Your task to perform on an android device: toggle pop-ups in chrome Image 0: 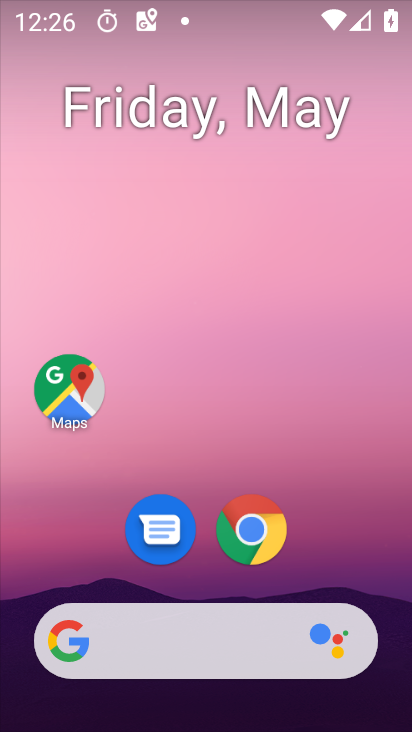
Step 0: click (259, 535)
Your task to perform on an android device: toggle pop-ups in chrome Image 1: 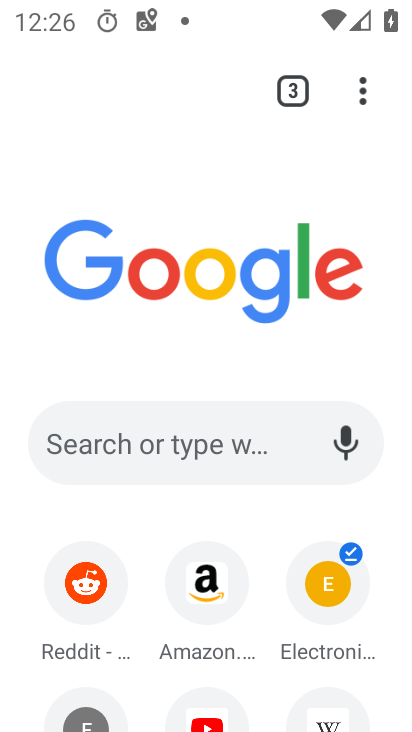
Step 1: click (358, 94)
Your task to perform on an android device: toggle pop-ups in chrome Image 2: 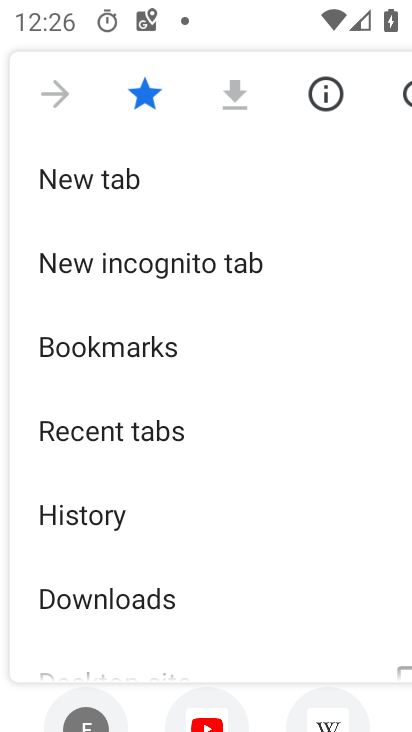
Step 2: drag from (156, 473) to (409, 281)
Your task to perform on an android device: toggle pop-ups in chrome Image 3: 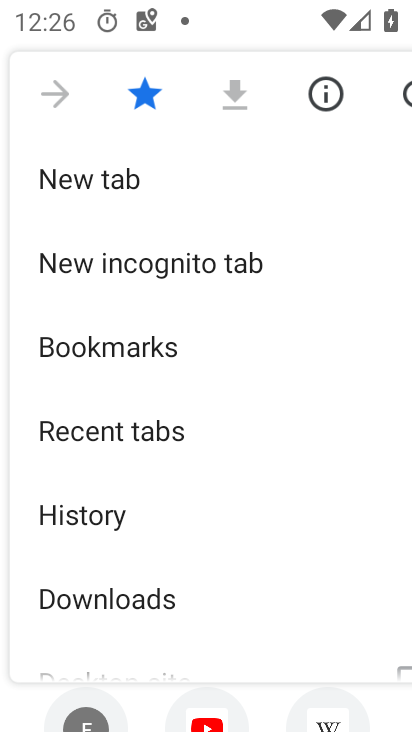
Step 3: drag from (143, 573) to (217, 23)
Your task to perform on an android device: toggle pop-ups in chrome Image 4: 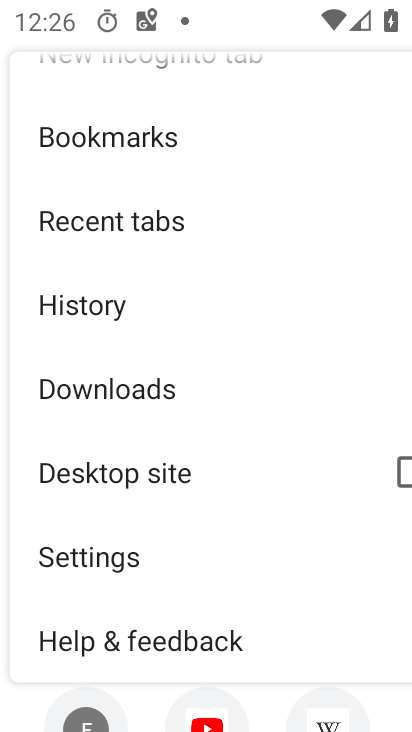
Step 4: click (137, 562)
Your task to perform on an android device: toggle pop-ups in chrome Image 5: 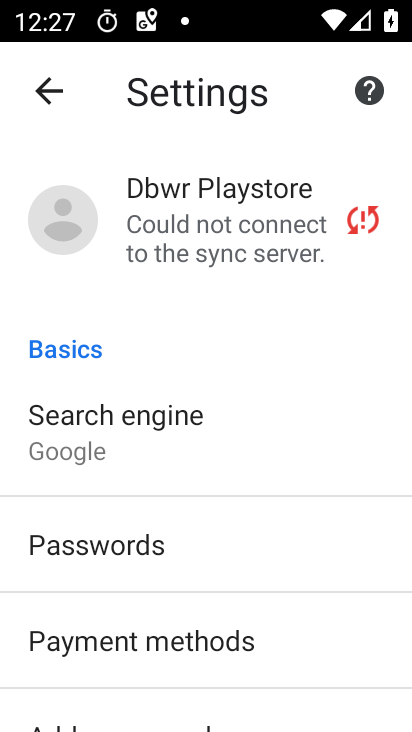
Step 5: drag from (215, 573) to (256, 273)
Your task to perform on an android device: toggle pop-ups in chrome Image 6: 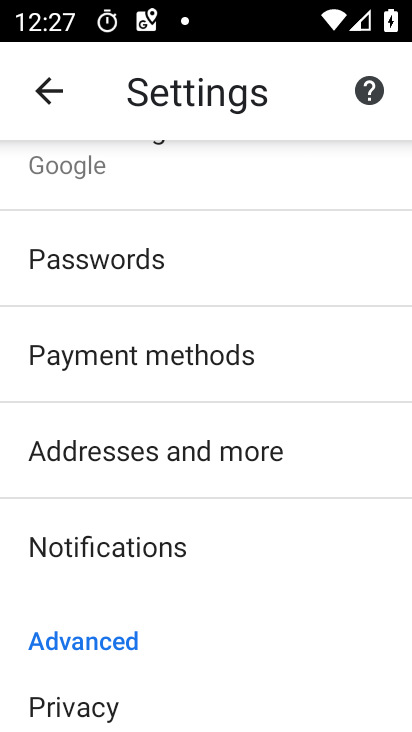
Step 6: drag from (217, 597) to (254, 225)
Your task to perform on an android device: toggle pop-ups in chrome Image 7: 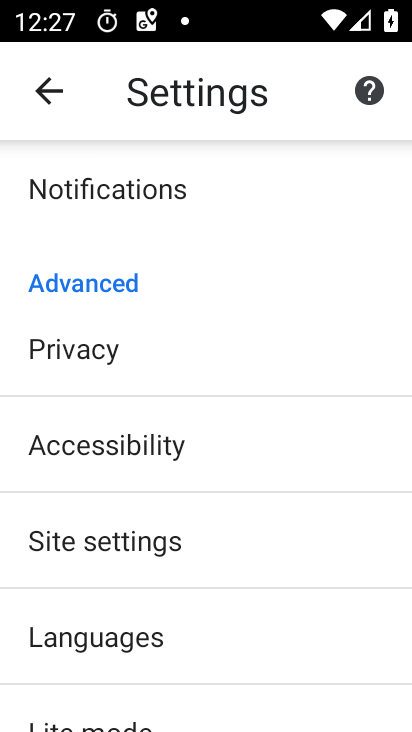
Step 7: drag from (154, 619) to (185, 396)
Your task to perform on an android device: toggle pop-ups in chrome Image 8: 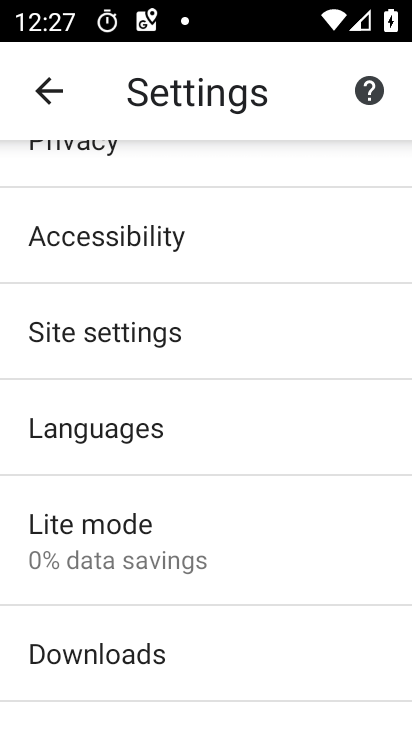
Step 8: click (184, 325)
Your task to perform on an android device: toggle pop-ups in chrome Image 9: 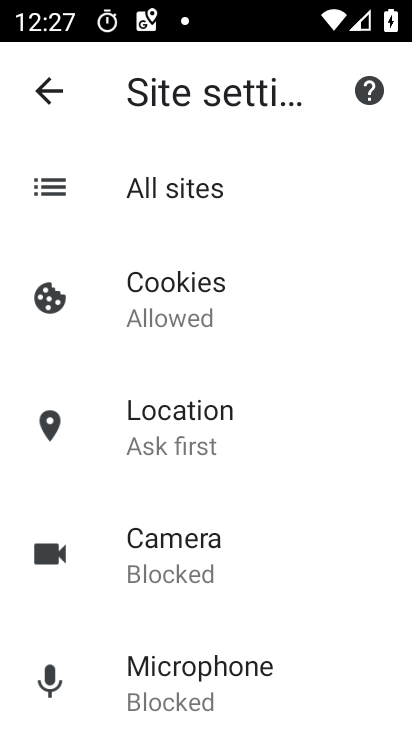
Step 9: drag from (192, 551) to (234, 172)
Your task to perform on an android device: toggle pop-ups in chrome Image 10: 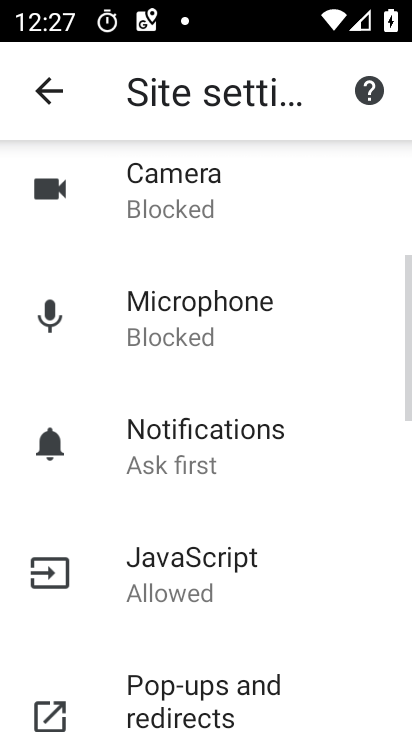
Step 10: drag from (221, 462) to (265, 158)
Your task to perform on an android device: toggle pop-ups in chrome Image 11: 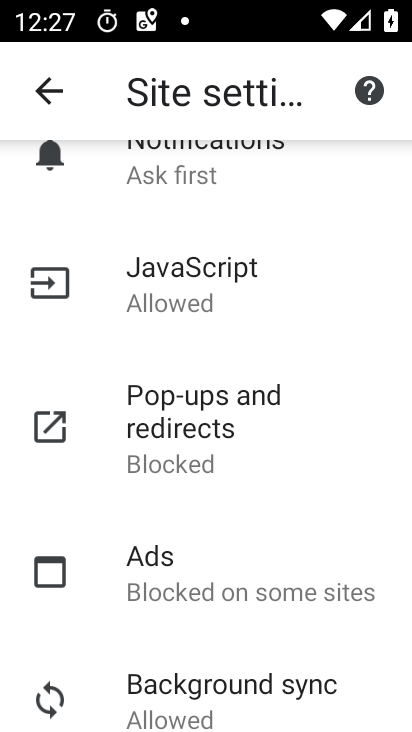
Step 11: click (236, 452)
Your task to perform on an android device: toggle pop-ups in chrome Image 12: 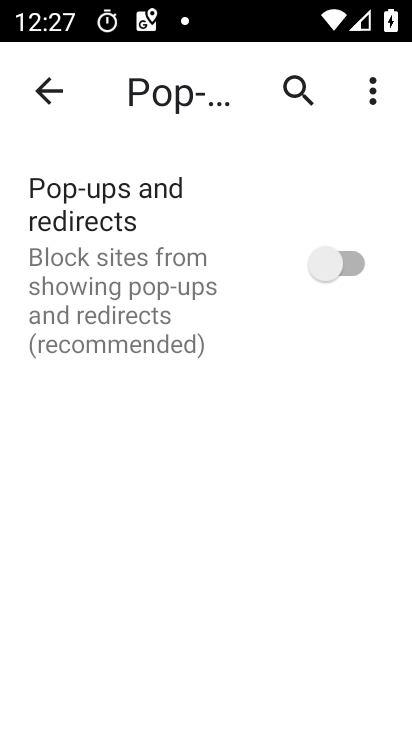
Step 12: click (351, 266)
Your task to perform on an android device: toggle pop-ups in chrome Image 13: 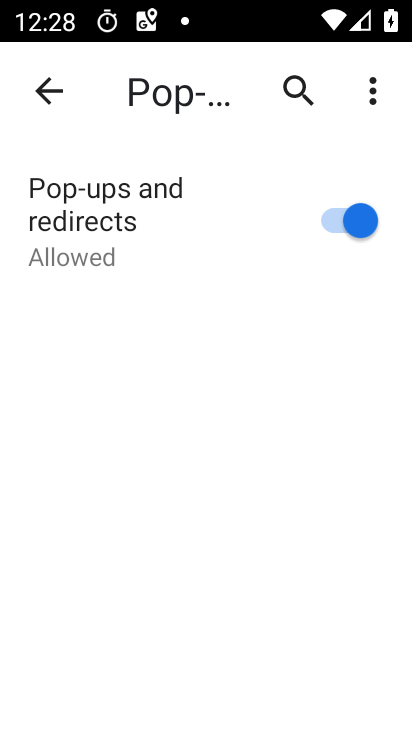
Step 13: task complete